Your task to perform on an android device: Turn off the flashlight Image 0: 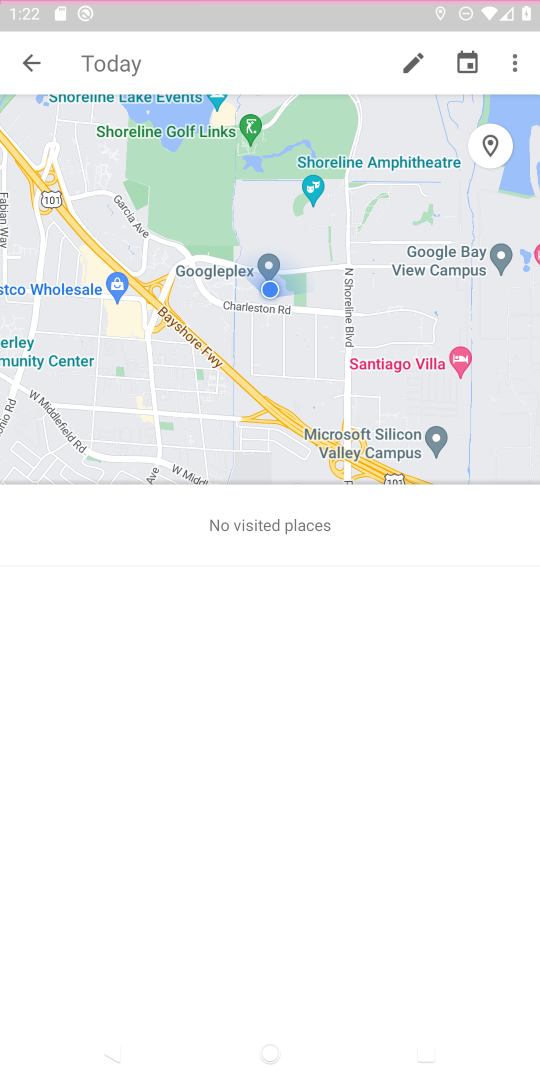
Step 0: press home button
Your task to perform on an android device: Turn off the flashlight Image 1: 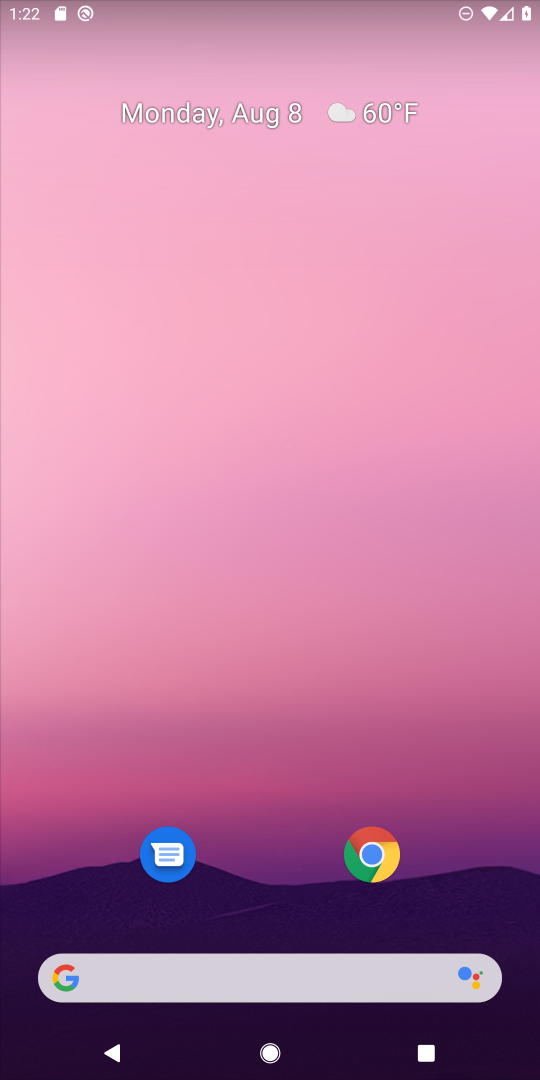
Step 1: task complete